Your task to perform on an android device: Is it going to rain this weekend? Image 0: 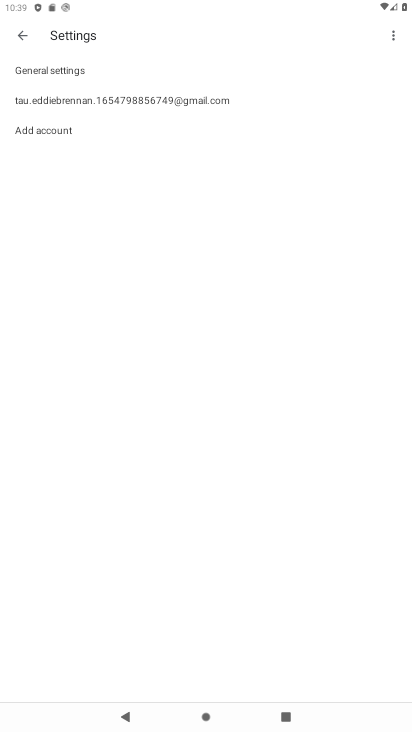
Step 0: click (22, 32)
Your task to perform on an android device: Is it going to rain this weekend? Image 1: 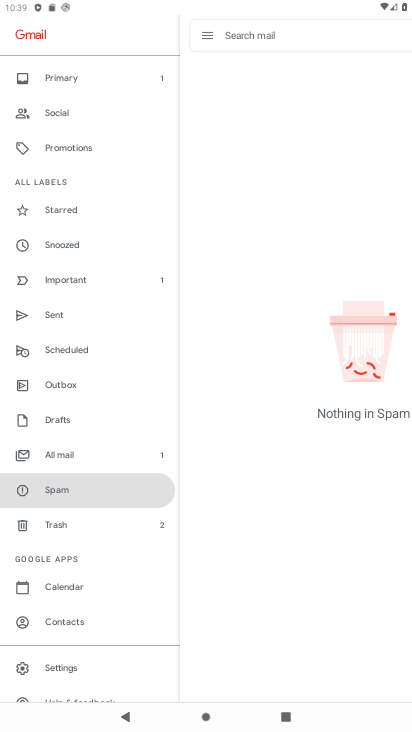
Step 1: press back button
Your task to perform on an android device: Is it going to rain this weekend? Image 2: 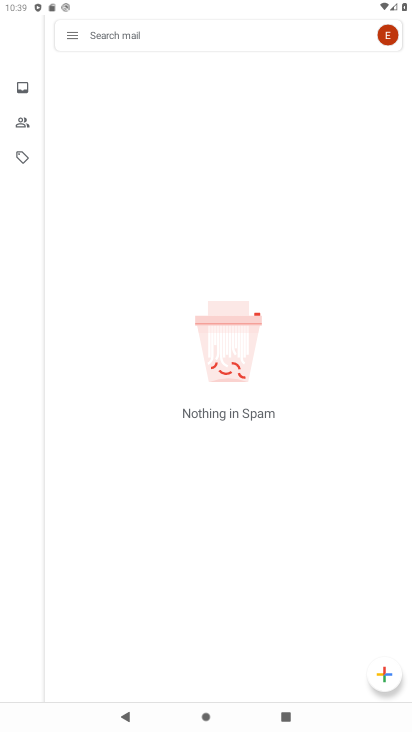
Step 2: press home button
Your task to perform on an android device: Is it going to rain this weekend? Image 3: 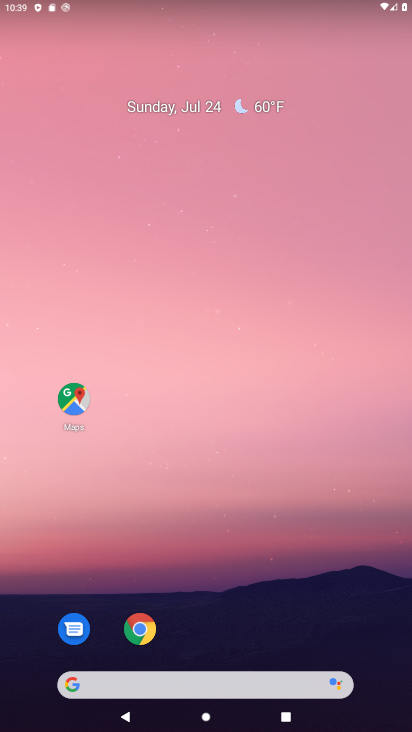
Step 3: click (216, 309)
Your task to perform on an android device: Is it going to rain this weekend? Image 4: 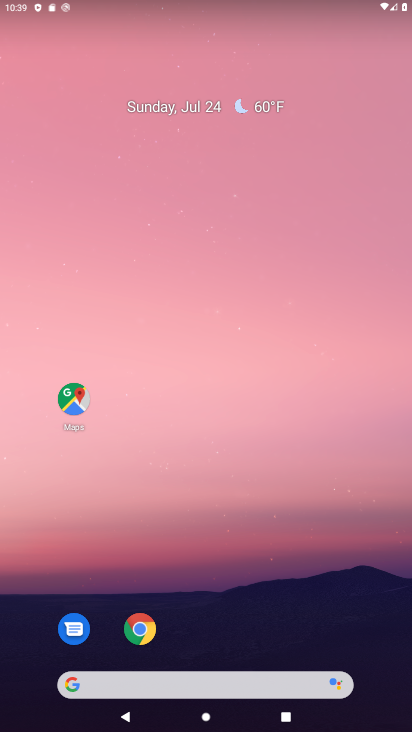
Step 4: drag from (309, 471) to (238, 10)
Your task to perform on an android device: Is it going to rain this weekend? Image 5: 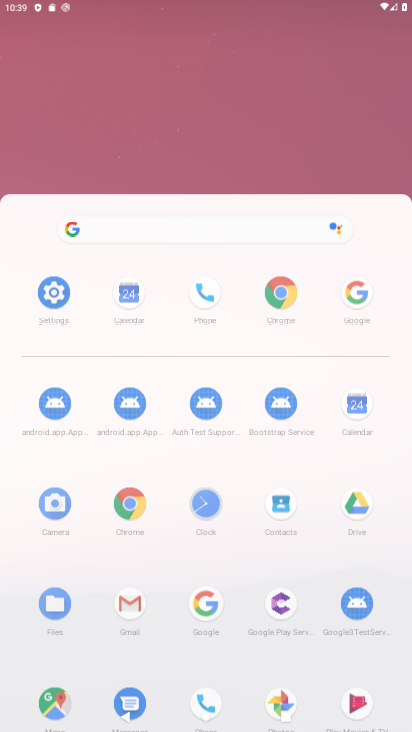
Step 5: drag from (300, 497) to (327, 298)
Your task to perform on an android device: Is it going to rain this weekend? Image 6: 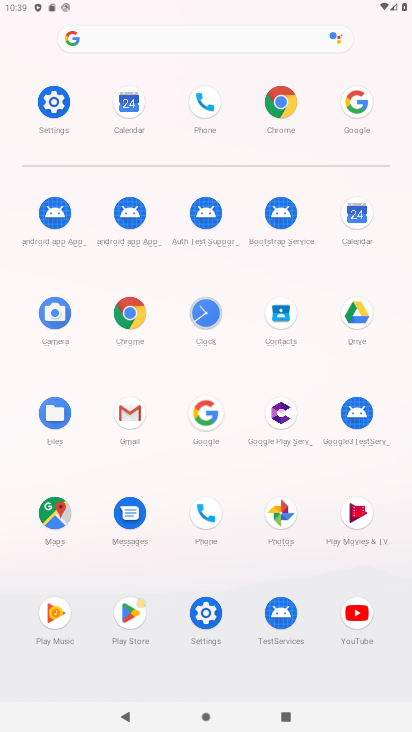
Step 6: click (281, 101)
Your task to perform on an android device: Is it going to rain this weekend? Image 7: 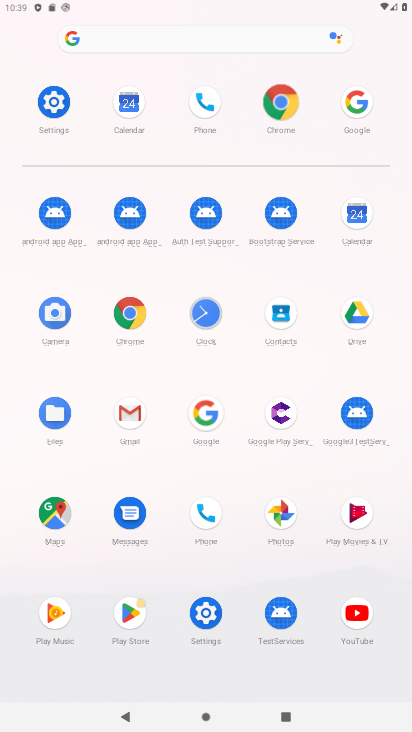
Step 7: click (283, 100)
Your task to perform on an android device: Is it going to rain this weekend? Image 8: 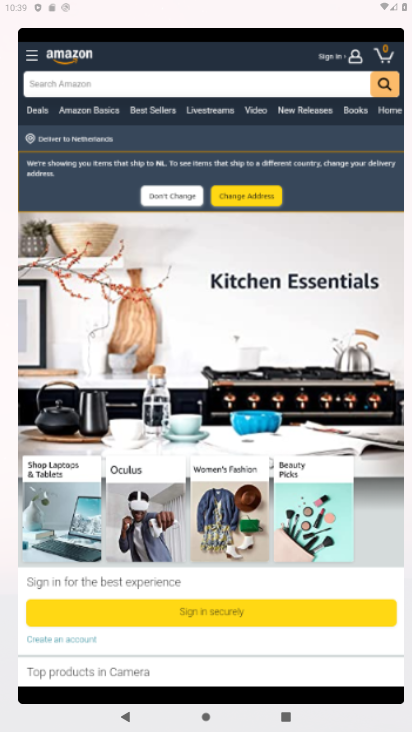
Step 8: click (293, 103)
Your task to perform on an android device: Is it going to rain this weekend? Image 9: 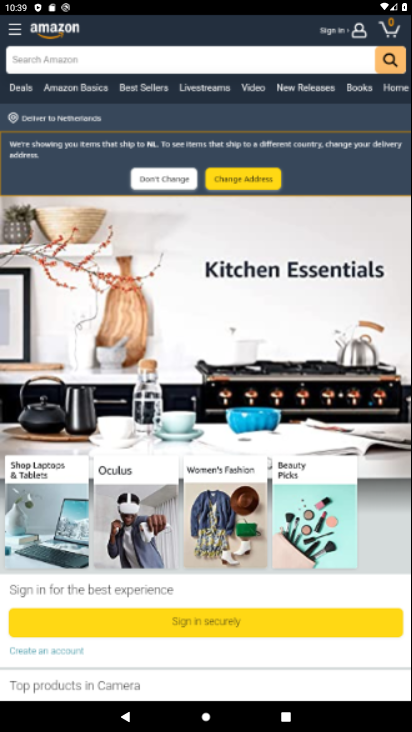
Step 9: click (301, 105)
Your task to perform on an android device: Is it going to rain this weekend? Image 10: 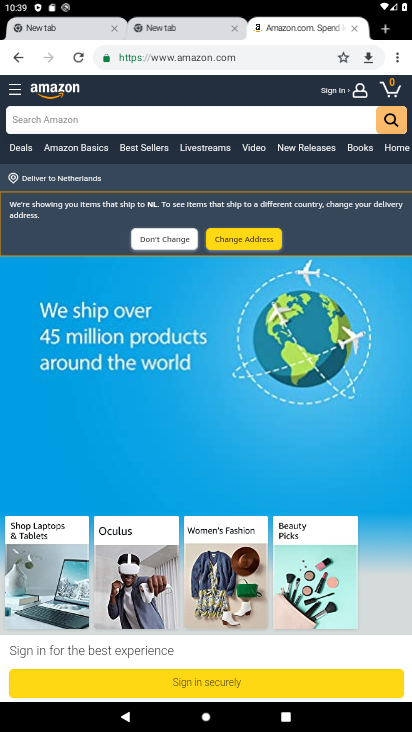
Step 10: click (385, 29)
Your task to perform on an android device: Is it going to rain this weekend? Image 11: 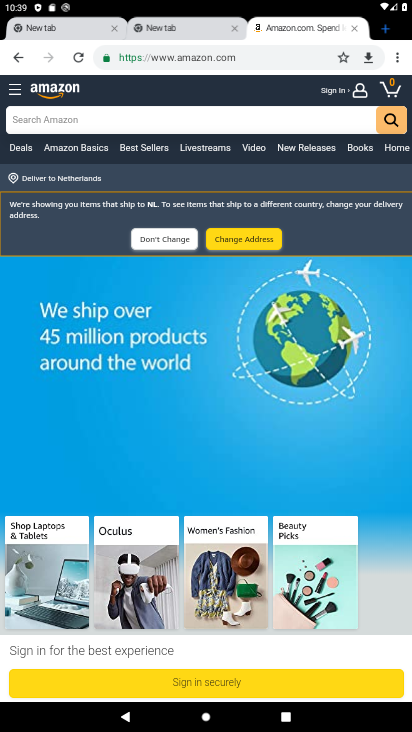
Step 11: drag from (392, 50) to (302, 49)
Your task to perform on an android device: Is it going to rain this weekend? Image 12: 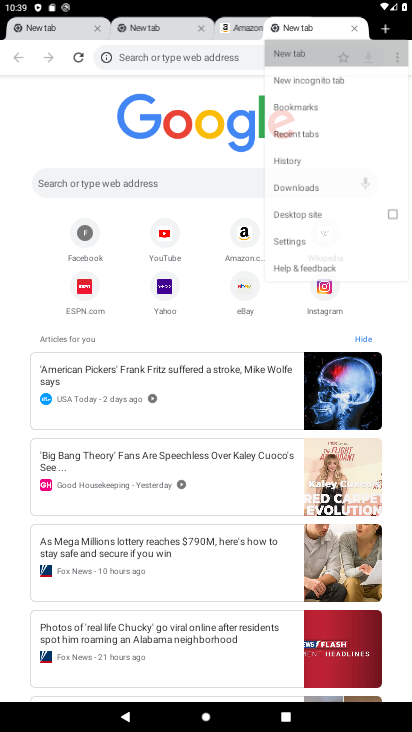
Step 12: click (302, 49)
Your task to perform on an android device: Is it going to rain this weekend? Image 13: 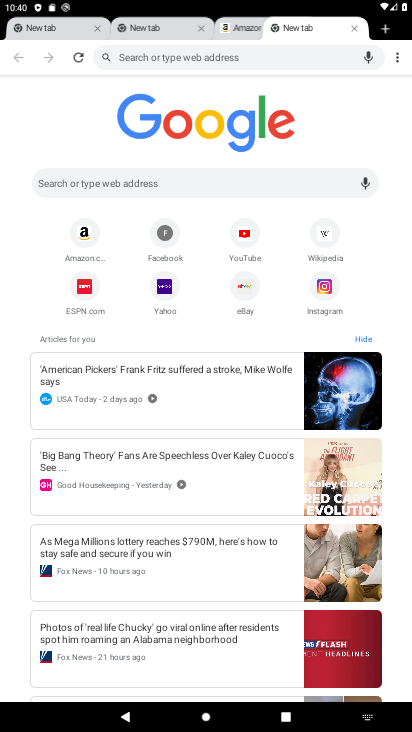
Step 13: type "is it going to rain this weekend?"
Your task to perform on an android device: Is it going to rain this weekend? Image 14: 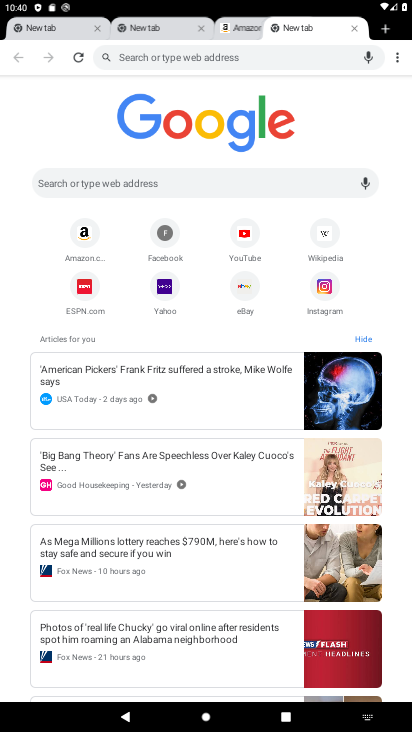
Step 14: click (71, 184)
Your task to perform on an android device: Is it going to rain this weekend? Image 15: 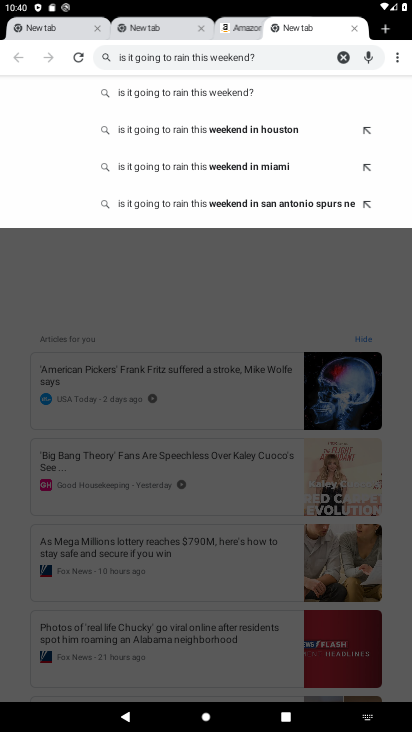
Step 15: click (67, 187)
Your task to perform on an android device: Is it going to rain this weekend? Image 16: 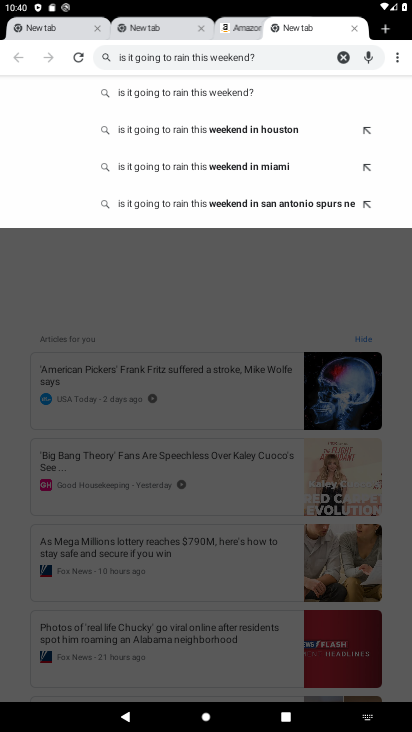
Step 16: click (68, 189)
Your task to perform on an android device: Is it going to rain this weekend? Image 17: 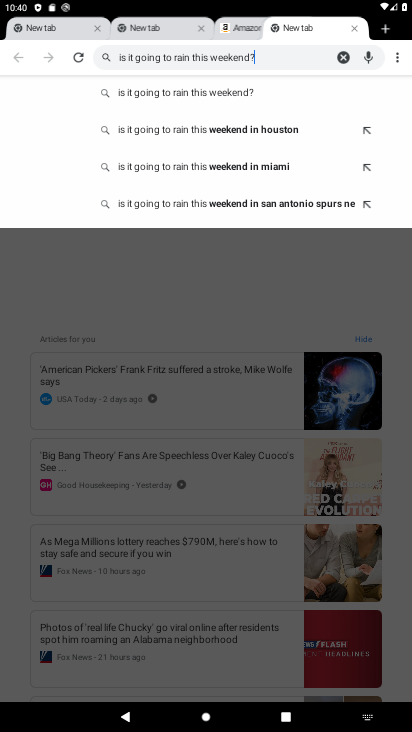
Step 17: click (237, 92)
Your task to perform on an android device: Is it going to rain this weekend? Image 18: 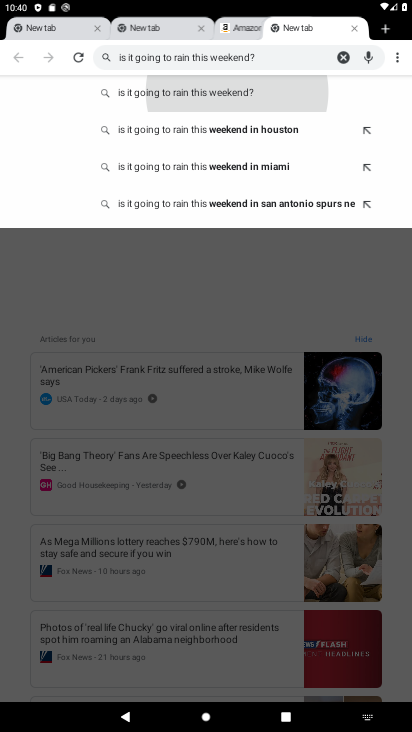
Step 18: click (236, 89)
Your task to perform on an android device: Is it going to rain this weekend? Image 19: 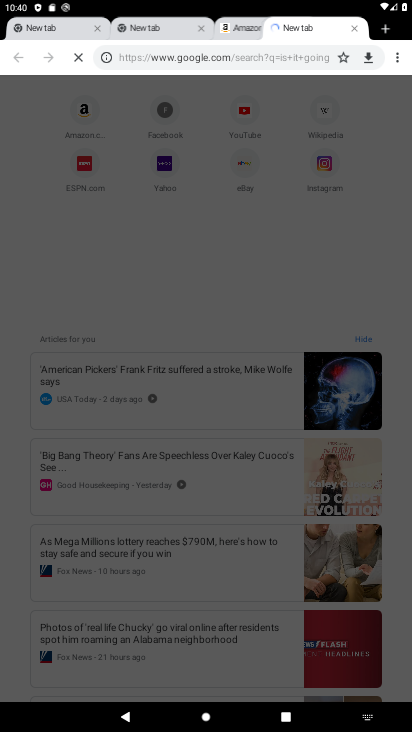
Step 19: click (238, 88)
Your task to perform on an android device: Is it going to rain this weekend? Image 20: 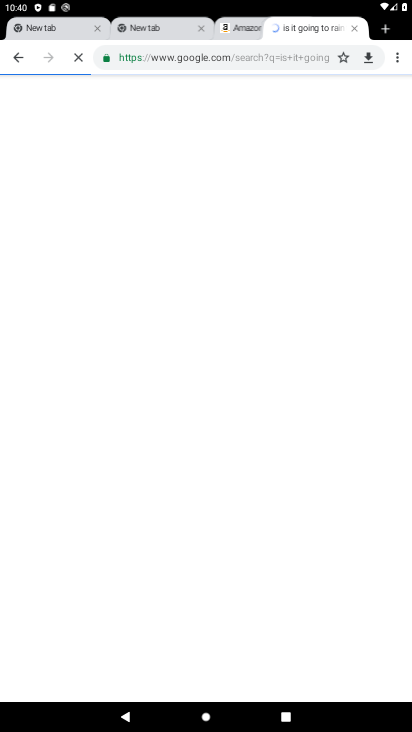
Step 20: click (235, 89)
Your task to perform on an android device: Is it going to rain this weekend? Image 21: 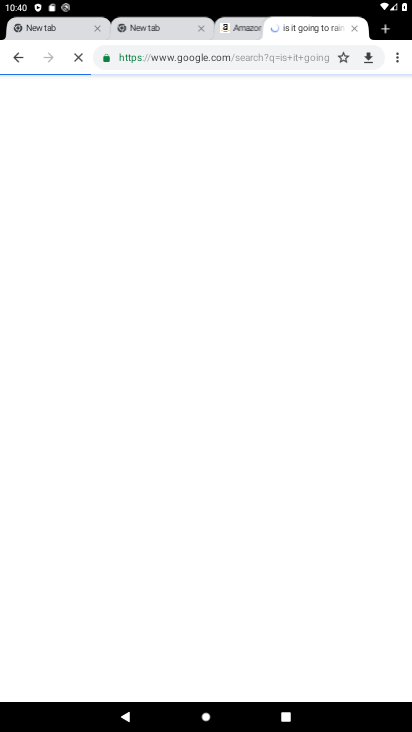
Step 21: click (235, 89)
Your task to perform on an android device: Is it going to rain this weekend? Image 22: 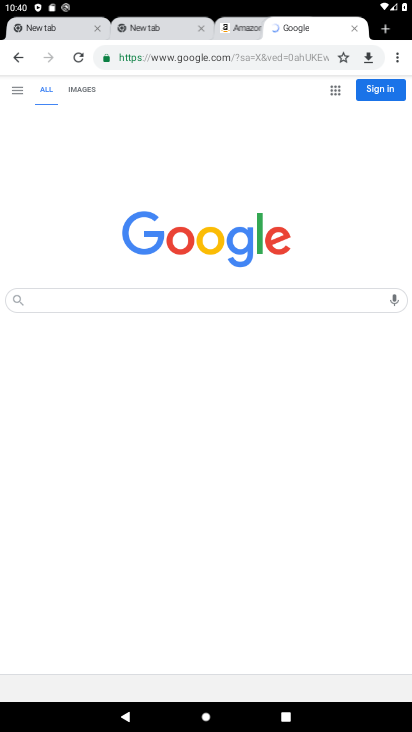
Step 22: task complete